Your task to perform on an android device: star an email in the gmail app Image 0: 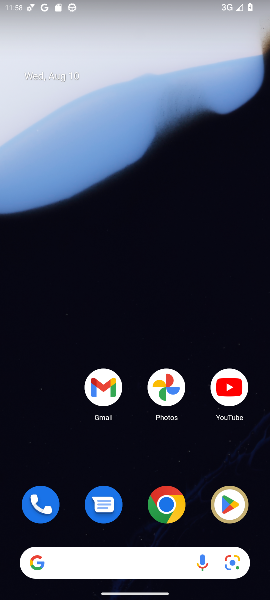
Step 0: press home button
Your task to perform on an android device: star an email in the gmail app Image 1: 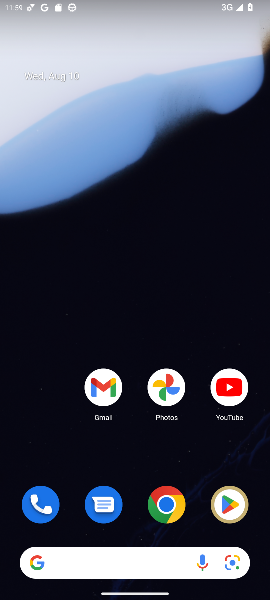
Step 1: click (104, 388)
Your task to perform on an android device: star an email in the gmail app Image 2: 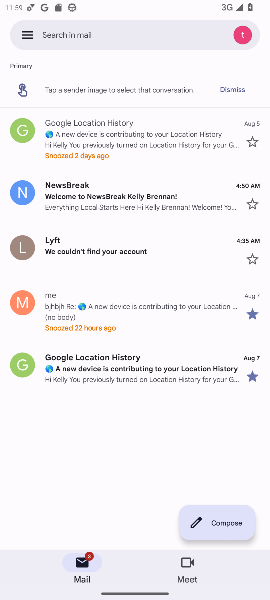
Step 2: click (144, 201)
Your task to perform on an android device: star an email in the gmail app Image 3: 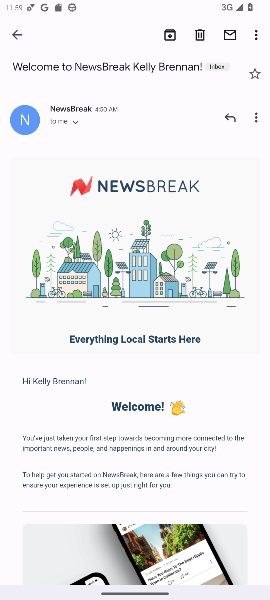
Step 3: click (253, 73)
Your task to perform on an android device: star an email in the gmail app Image 4: 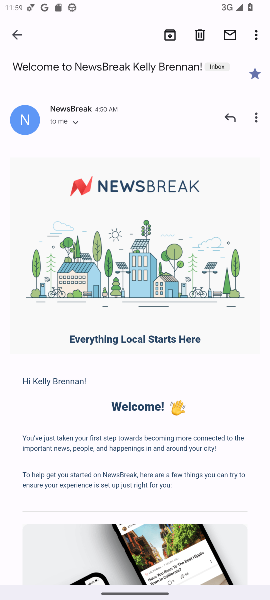
Step 4: task complete